Your task to perform on an android device: Add "logitech g933" to the cart on amazon.com, then select checkout. Image 0: 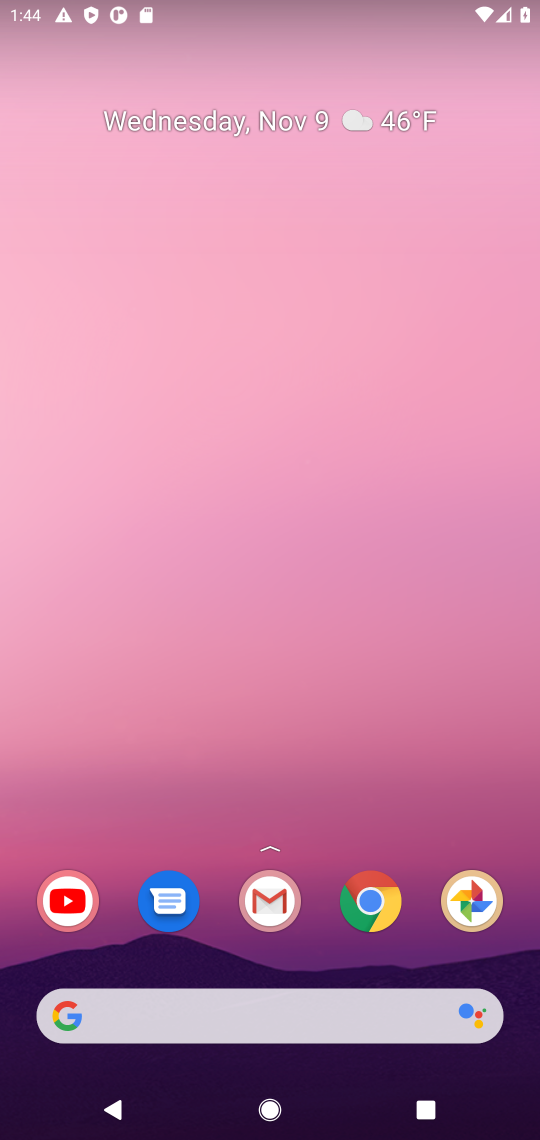
Step 0: click (367, 895)
Your task to perform on an android device: Add "logitech g933" to the cart on amazon.com, then select checkout. Image 1: 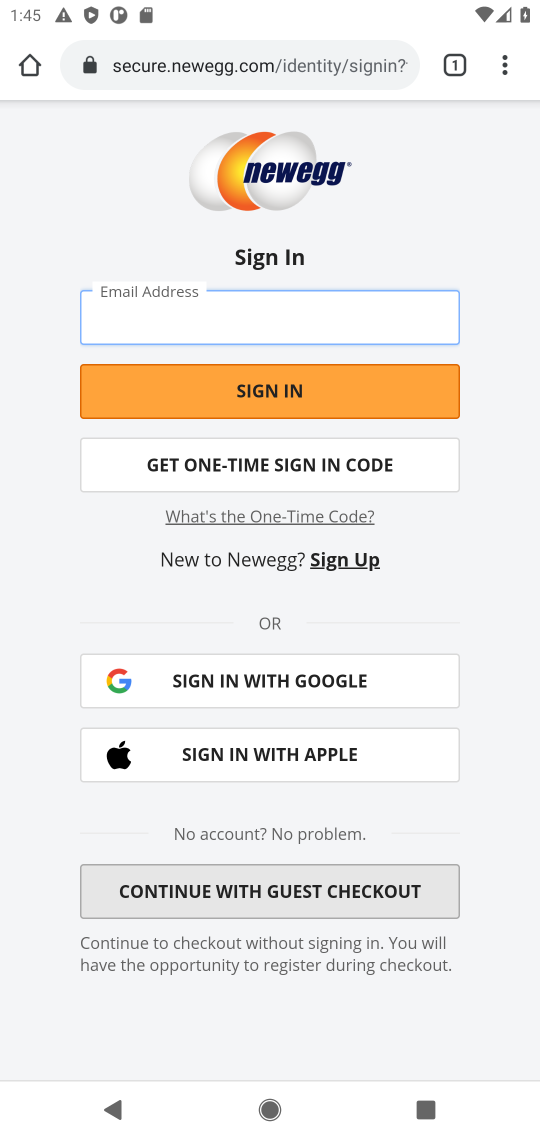
Step 1: press home button
Your task to perform on an android device: Add "logitech g933" to the cart on amazon.com, then select checkout. Image 2: 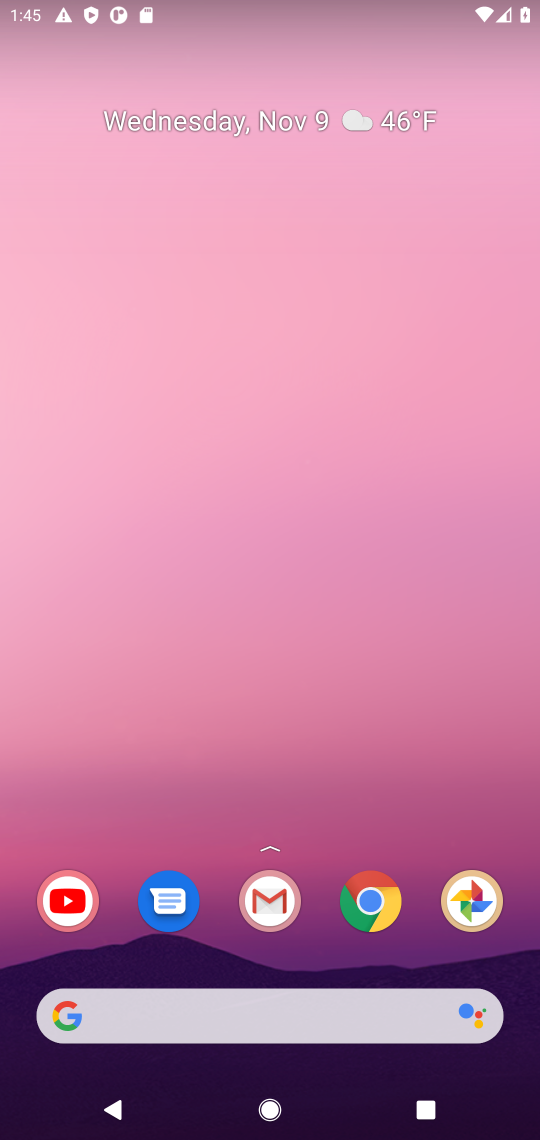
Step 2: click (361, 895)
Your task to perform on an android device: Add "logitech g933" to the cart on amazon.com, then select checkout. Image 3: 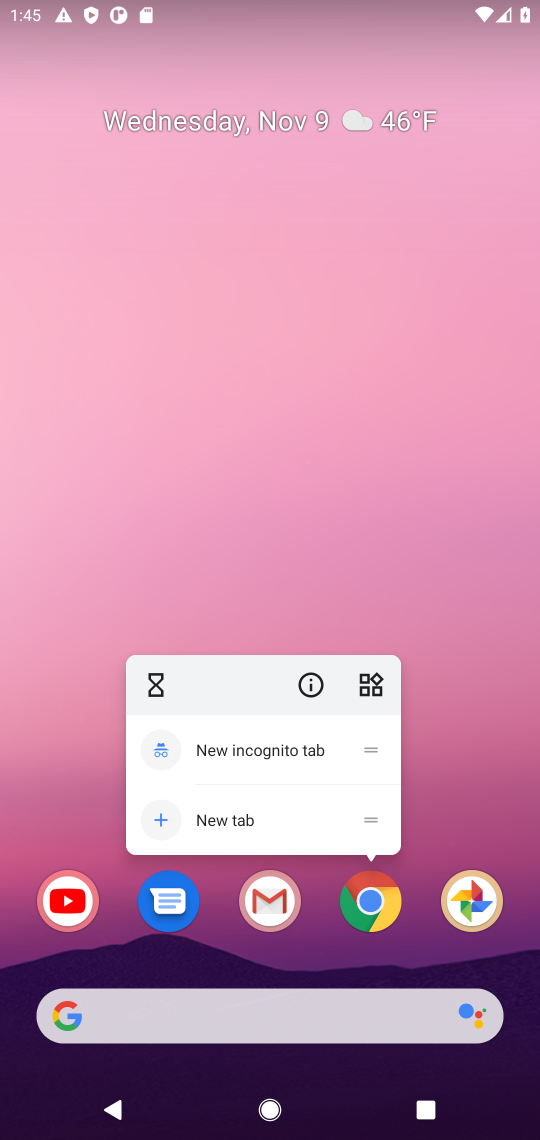
Step 3: click (385, 917)
Your task to perform on an android device: Add "logitech g933" to the cart on amazon.com, then select checkout. Image 4: 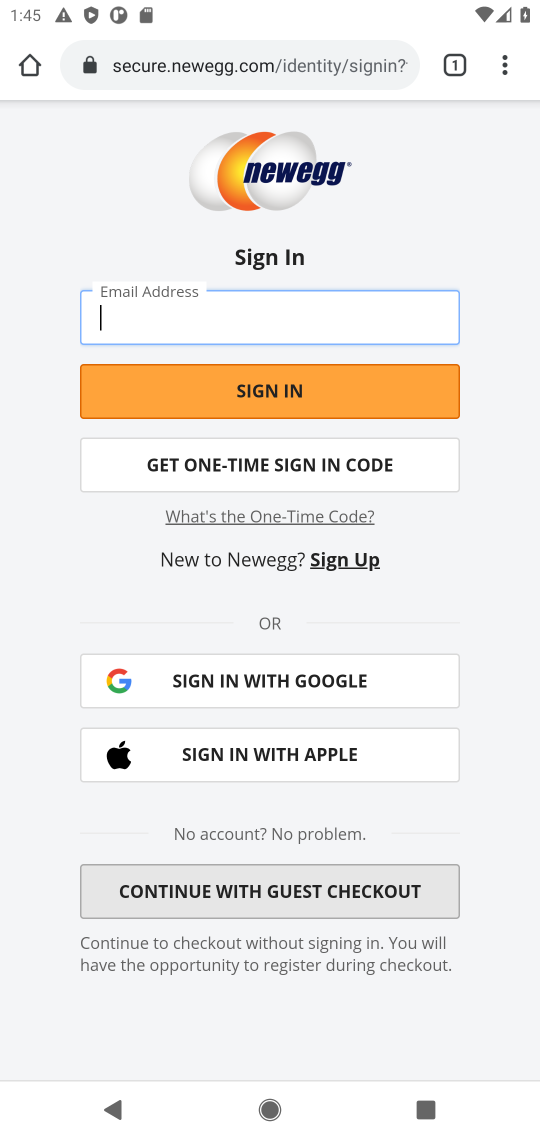
Step 4: click (317, 59)
Your task to perform on an android device: Add "logitech g933" to the cart on amazon.com, then select checkout. Image 5: 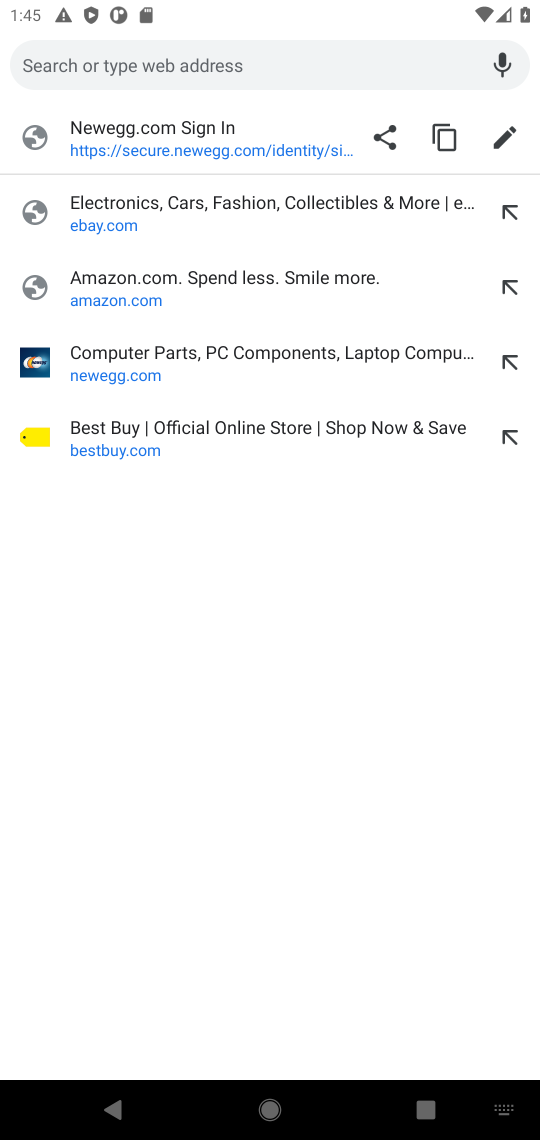
Step 5: click (174, 278)
Your task to perform on an android device: Add "logitech g933" to the cart on amazon.com, then select checkout. Image 6: 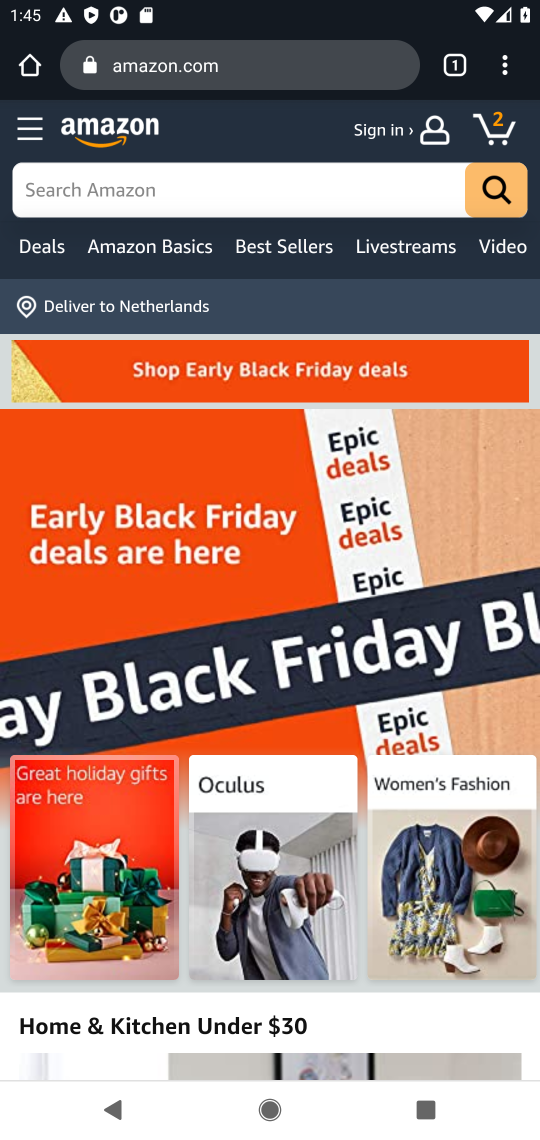
Step 6: click (298, 181)
Your task to perform on an android device: Add "logitech g933" to the cart on amazon.com, then select checkout. Image 7: 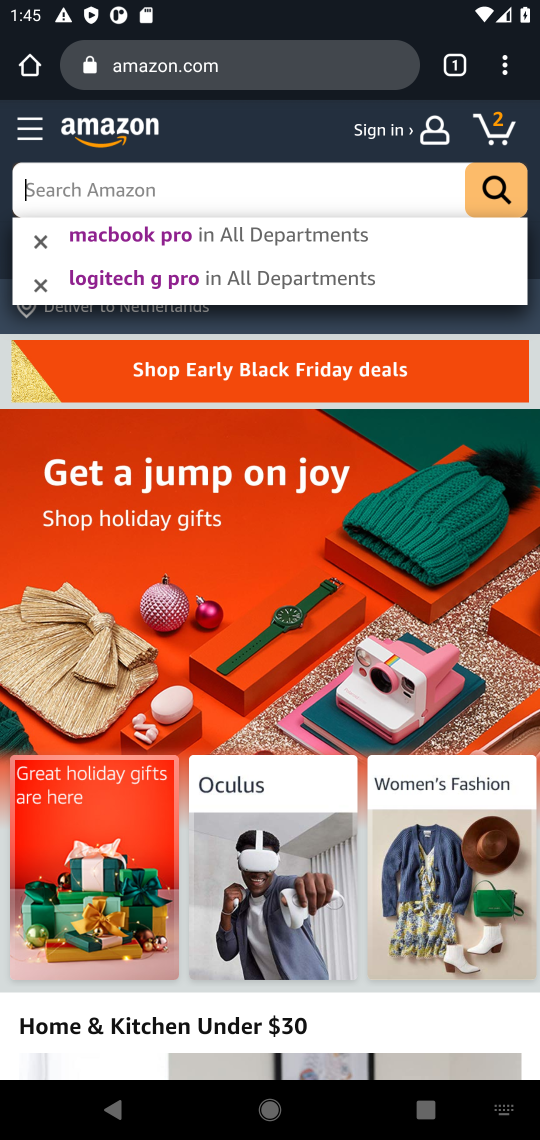
Step 7: type "logitech g933"
Your task to perform on an android device: Add "logitech g933" to the cart on amazon.com, then select checkout. Image 8: 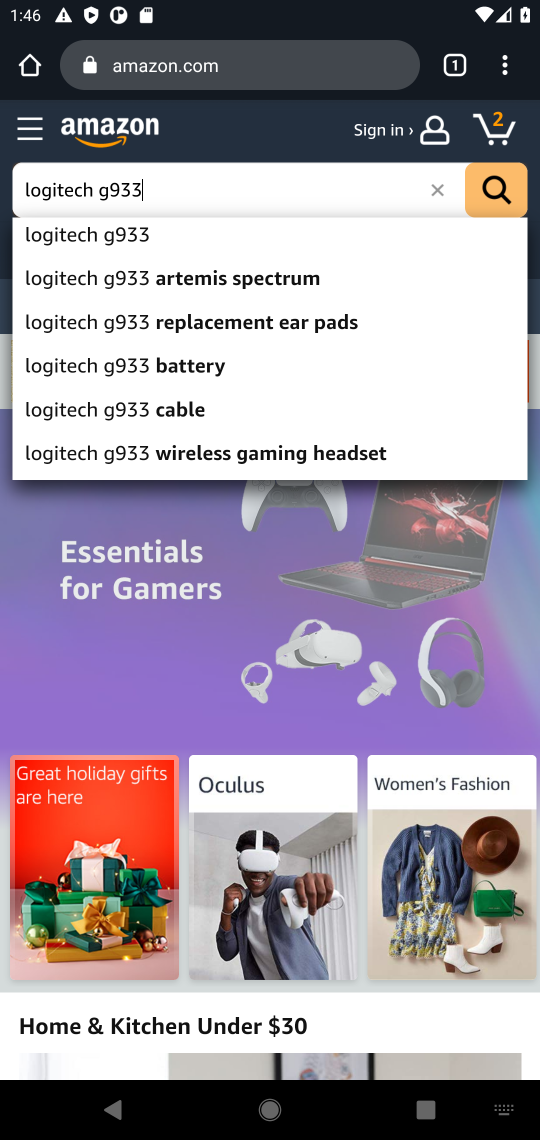
Step 8: click (137, 233)
Your task to perform on an android device: Add "logitech g933" to the cart on amazon.com, then select checkout. Image 9: 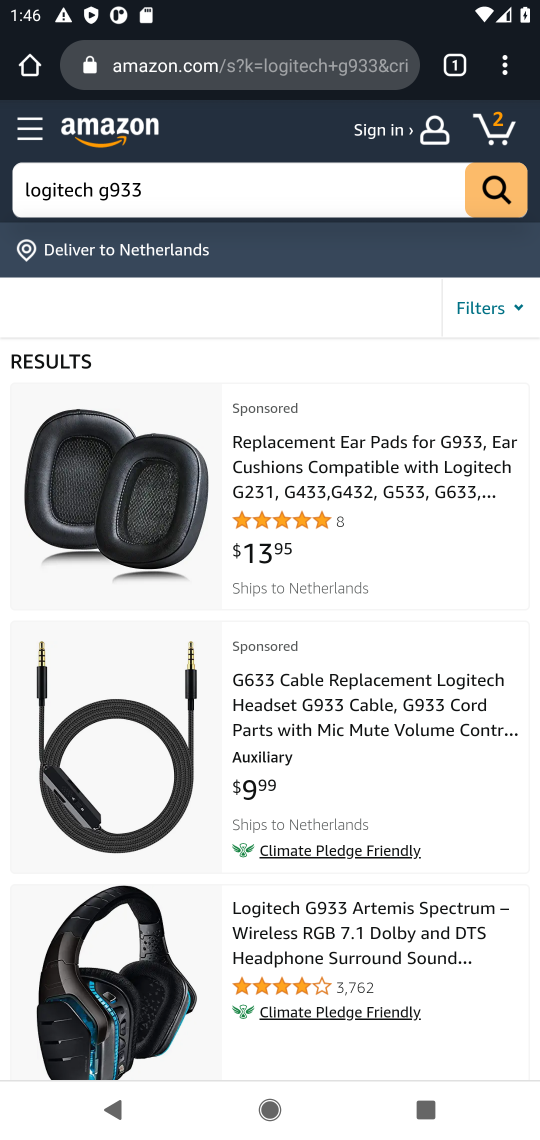
Step 9: drag from (421, 922) to (407, 688)
Your task to perform on an android device: Add "logitech g933" to the cart on amazon.com, then select checkout. Image 10: 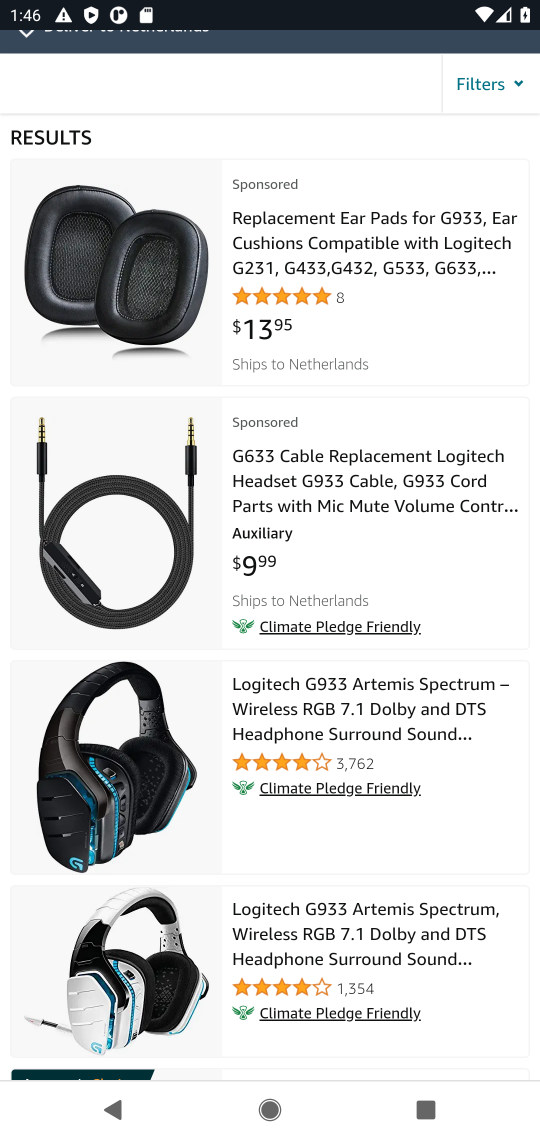
Step 10: click (95, 711)
Your task to perform on an android device: Add "logitech g933" to the cart on amazon.com, then select checkout. Image 11: 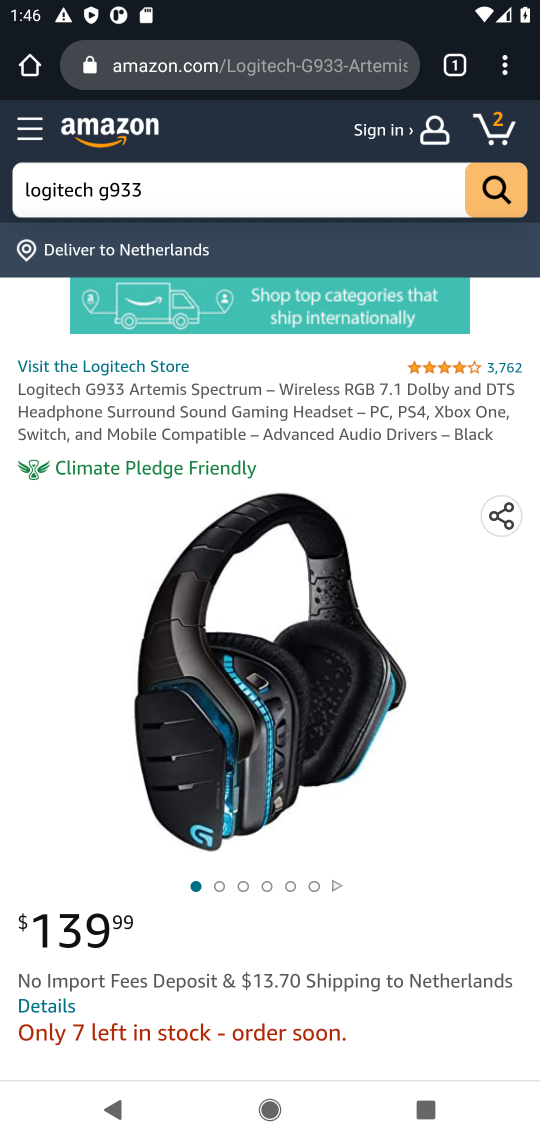
Step 11: drag from (369, 773) to (445, 281)
Your task to perform on an android device: Add "logitech g933" to the cart on amazon.com, then select checkout. Image 12: 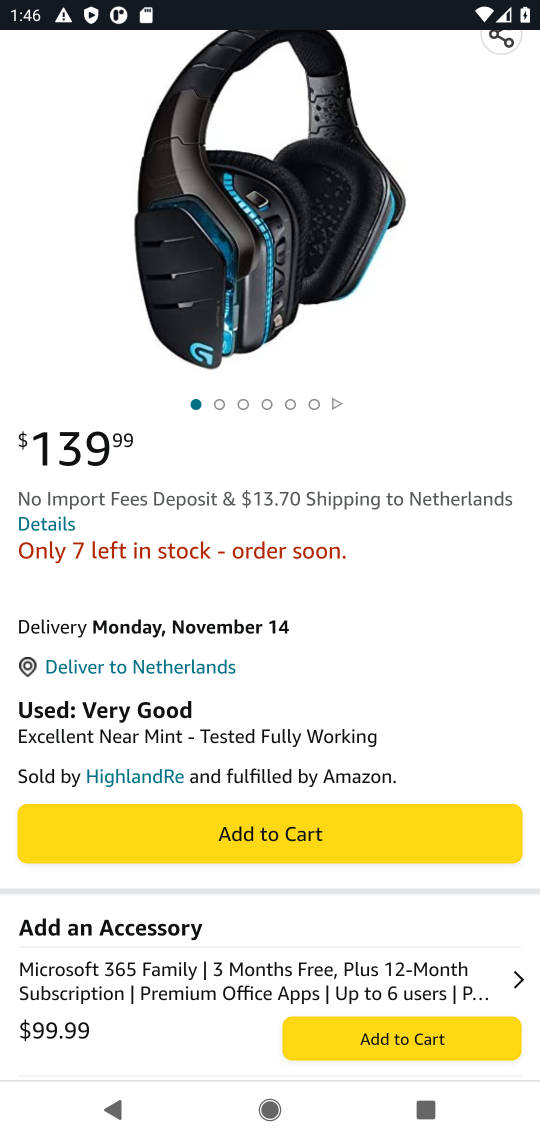
Step 12: click (304, 829)
Your task to perform on an android device: Add "logitech g933" to the cart on amazon.com, then select checkout. Image 13: 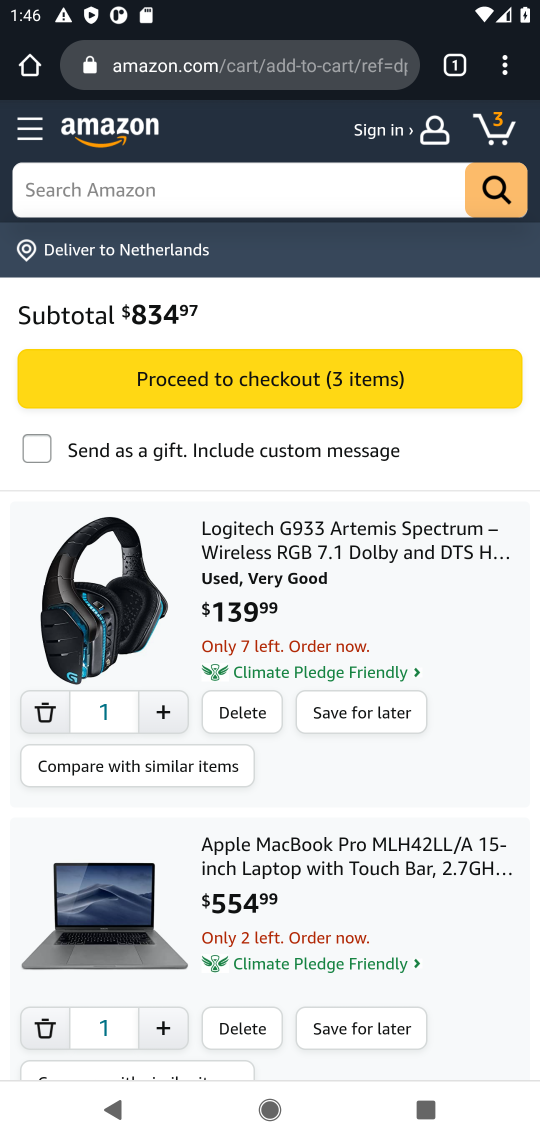
Step 13: click (178, 361)
Your task to perform on an android device: Add "logitech g933" to the cart on amazon.com, then select checkout. Image 14: 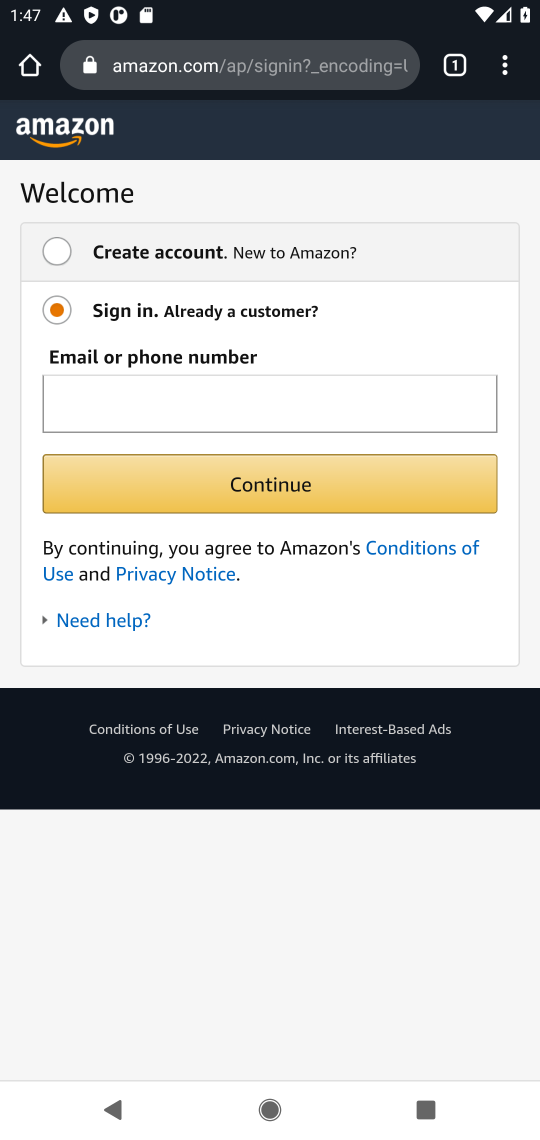
Step 14: task complete